Your task to perform on an android device: Search for "asus rog" on bestbuy, select the first entry, add it to the cart, then select checkout. Image 0: 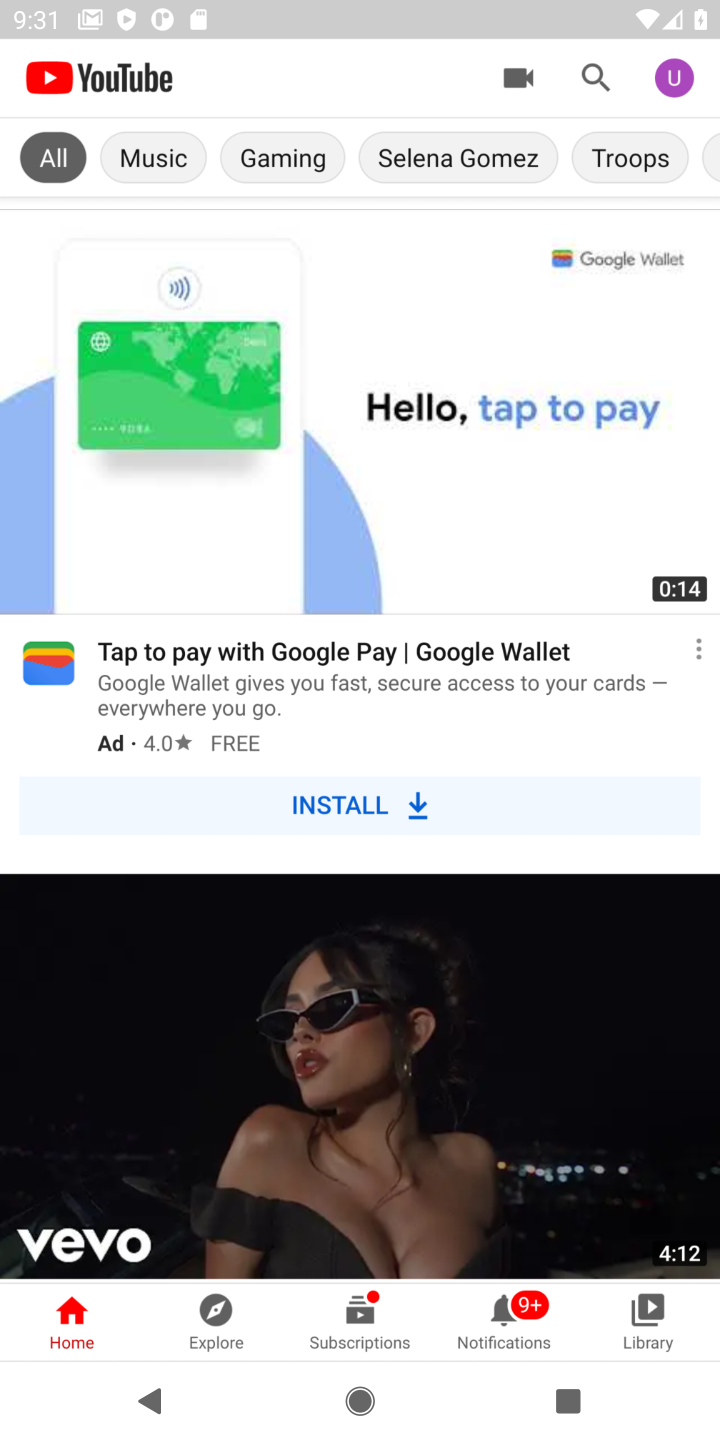
Step 0: press home button
Your task to perform on an android device: Search for "asus rog" on bestbuy, select the first entry, add it to the cart, then select checkout. Image 1: 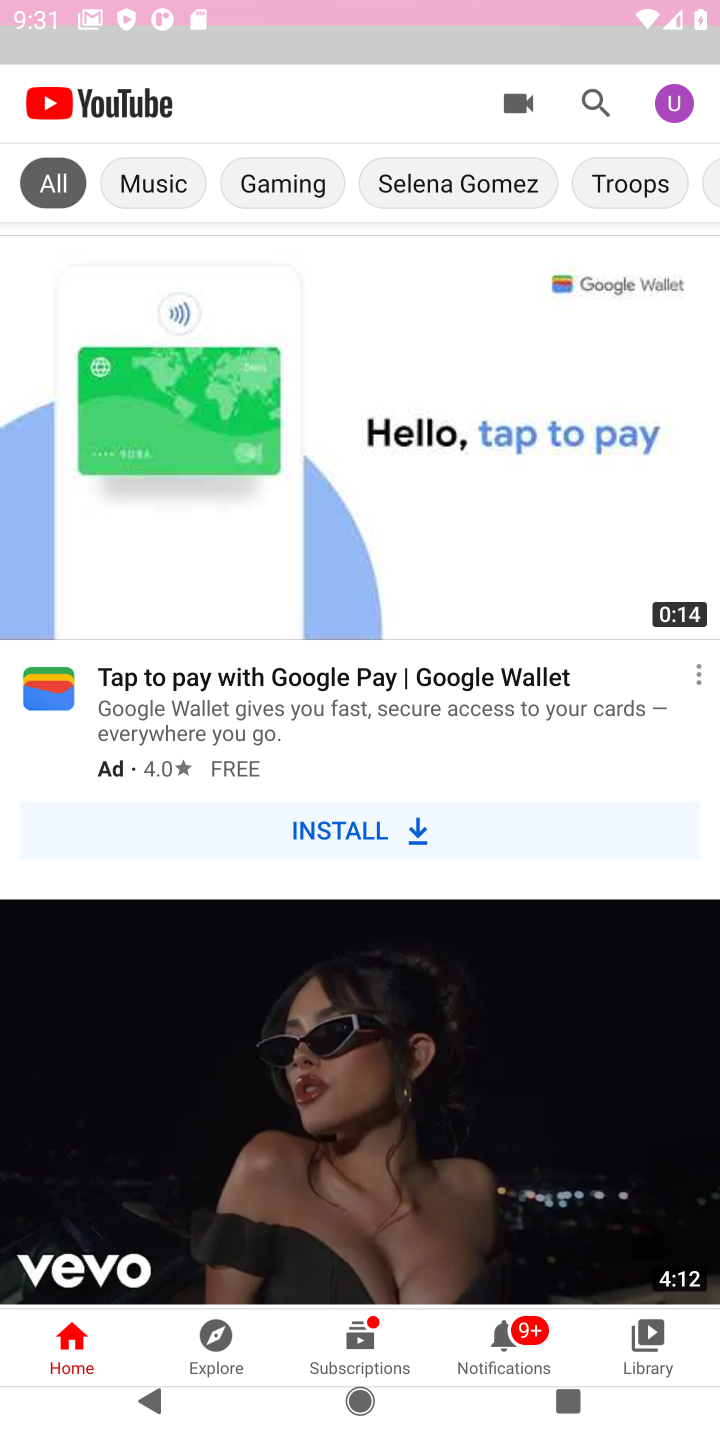
Step 1: press home button
Your task to perform on an android device: Search for "asus rog" on bestbuy, select the first entry, add it to the cart, then select checkout. Image 2: 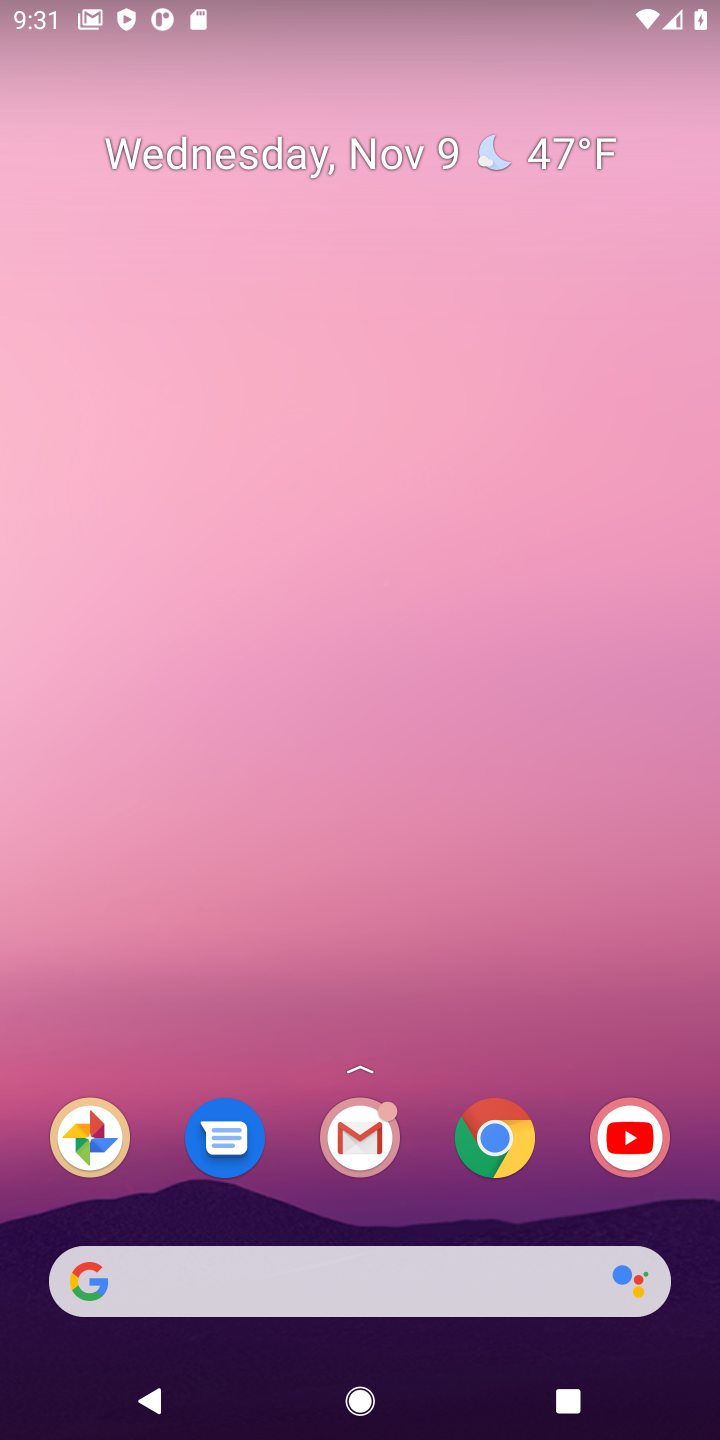
Step 2: drag from (418, 1210) to (301, 0)
Your task to perform on an android device: Search for "asus rog" on bestbuy, select the first entry, add it to the cart, then select checkout. Image 3: 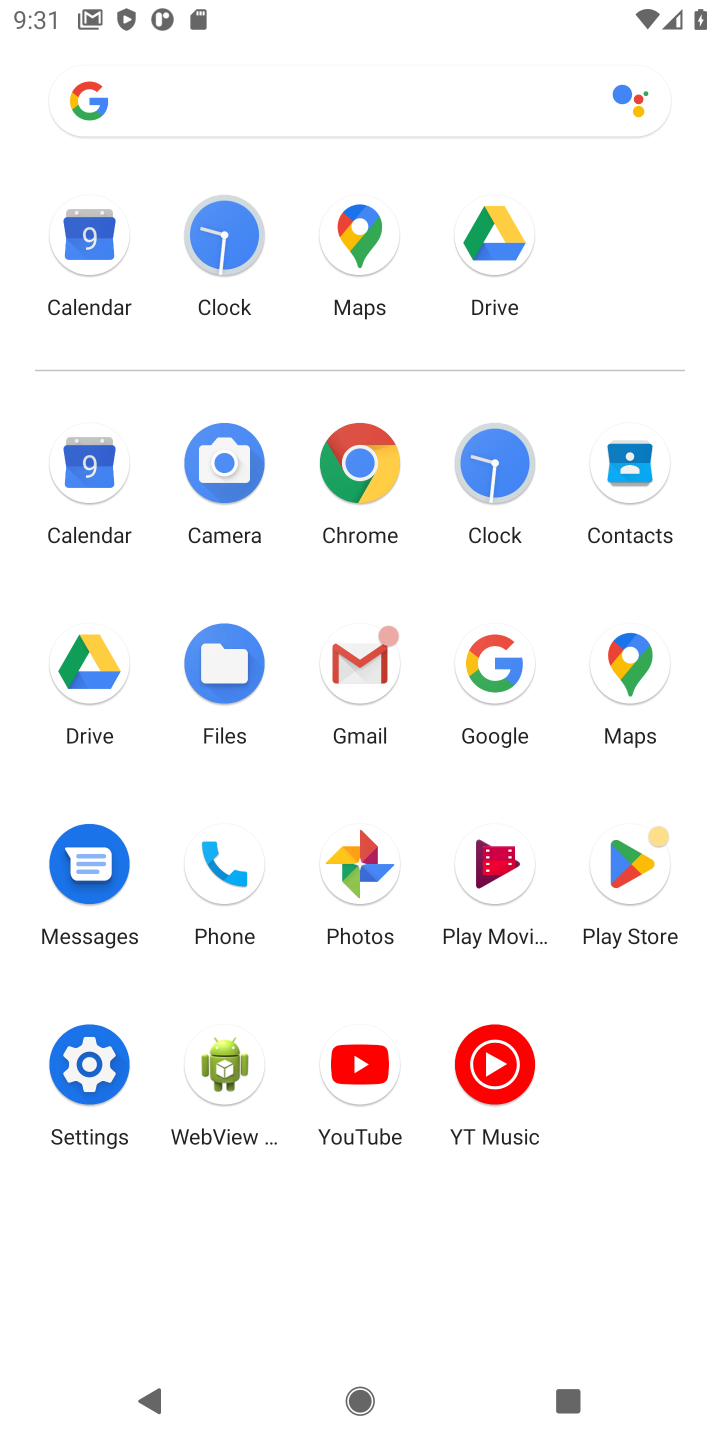
Step 3: click (359, 469)
Your task to perform on an android device: Search for "asus rog" on bestbuy, select the first entry, add it to the cart, then select checkout. Image 4: 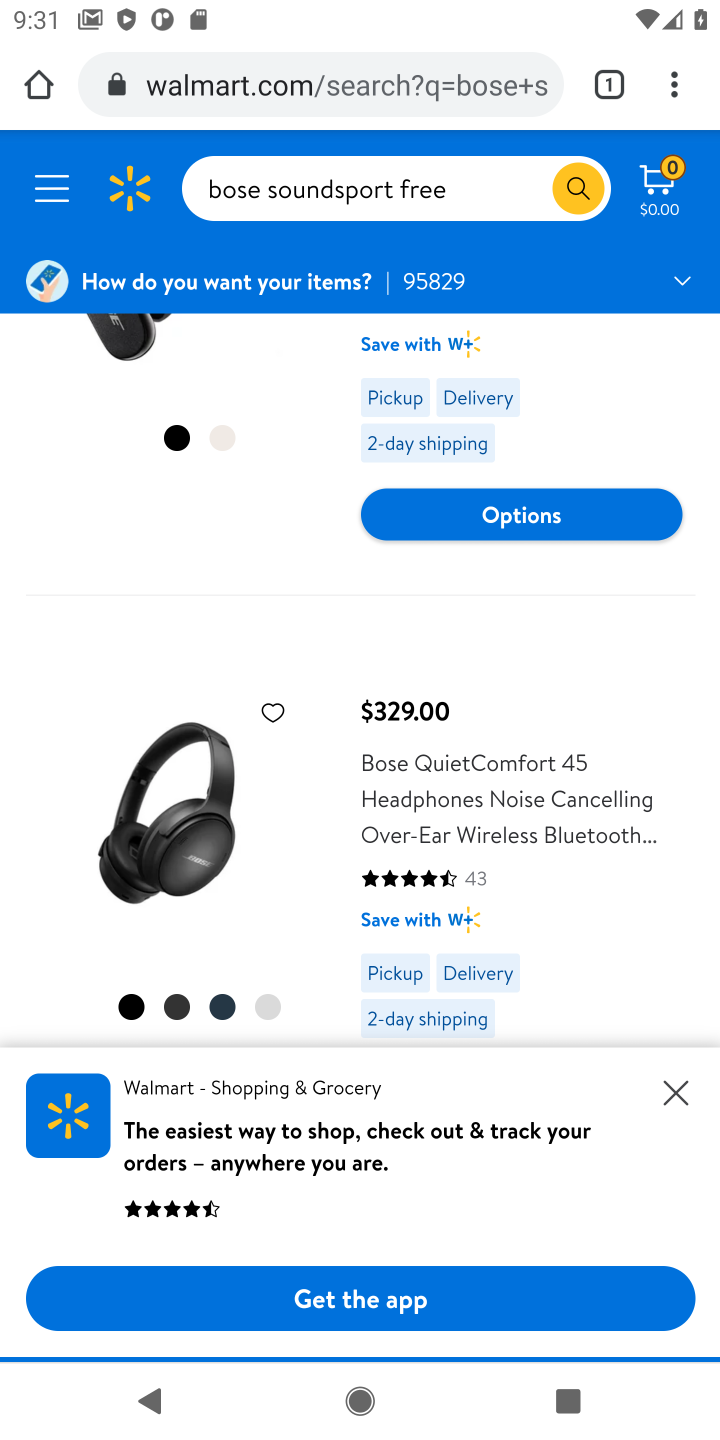
Step 4: click (445, 74)
Your task to perform on an android device: Search for "asus rog" on bestbuy, select the first entry, add it to the cart, then select checkout. Image 5: 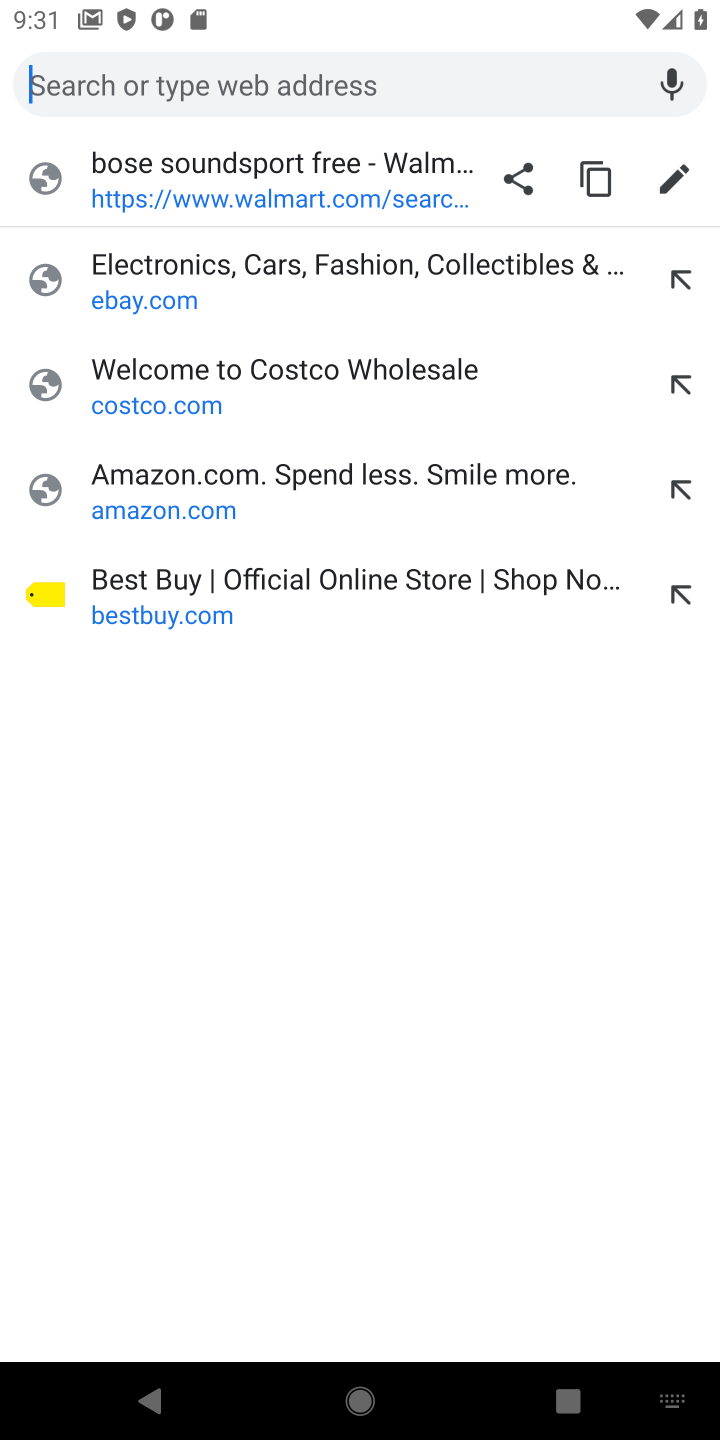
Step 5: type "bestbuy.com"
Your task to perform on an android device: Search for "asus rog" on bestbuy, select the first entry, add it to the cart, then select checkout. Image 6: 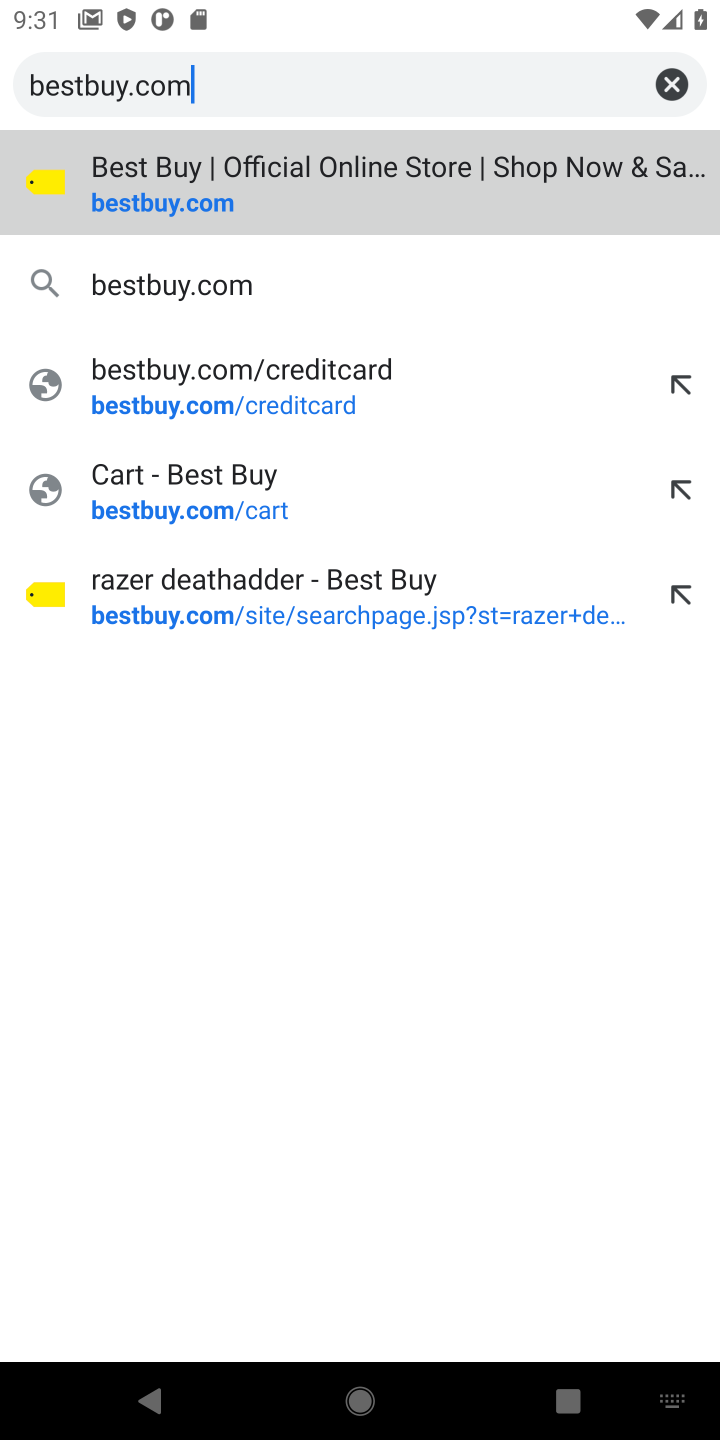
Step 6: press enter
Your task to perform on an android device: Search for "asus rog" on bestbuy, select the first entry, add it to the cart, then select checkout. Image 7: 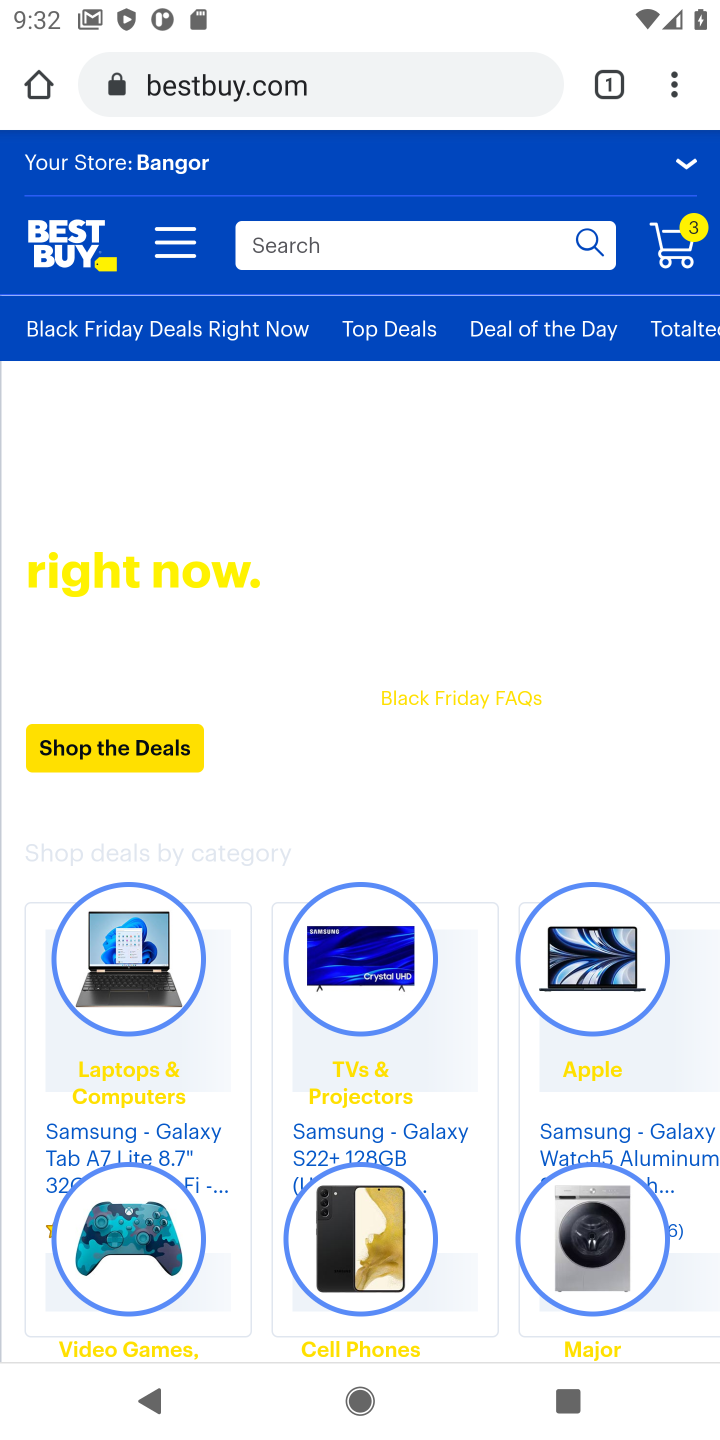
Step 7: click (372, 240)
Your task to perform on an android device: Search for "asus rog" on bestbuy, select the first entry, add it to the cart, then select checkout. Image 8: 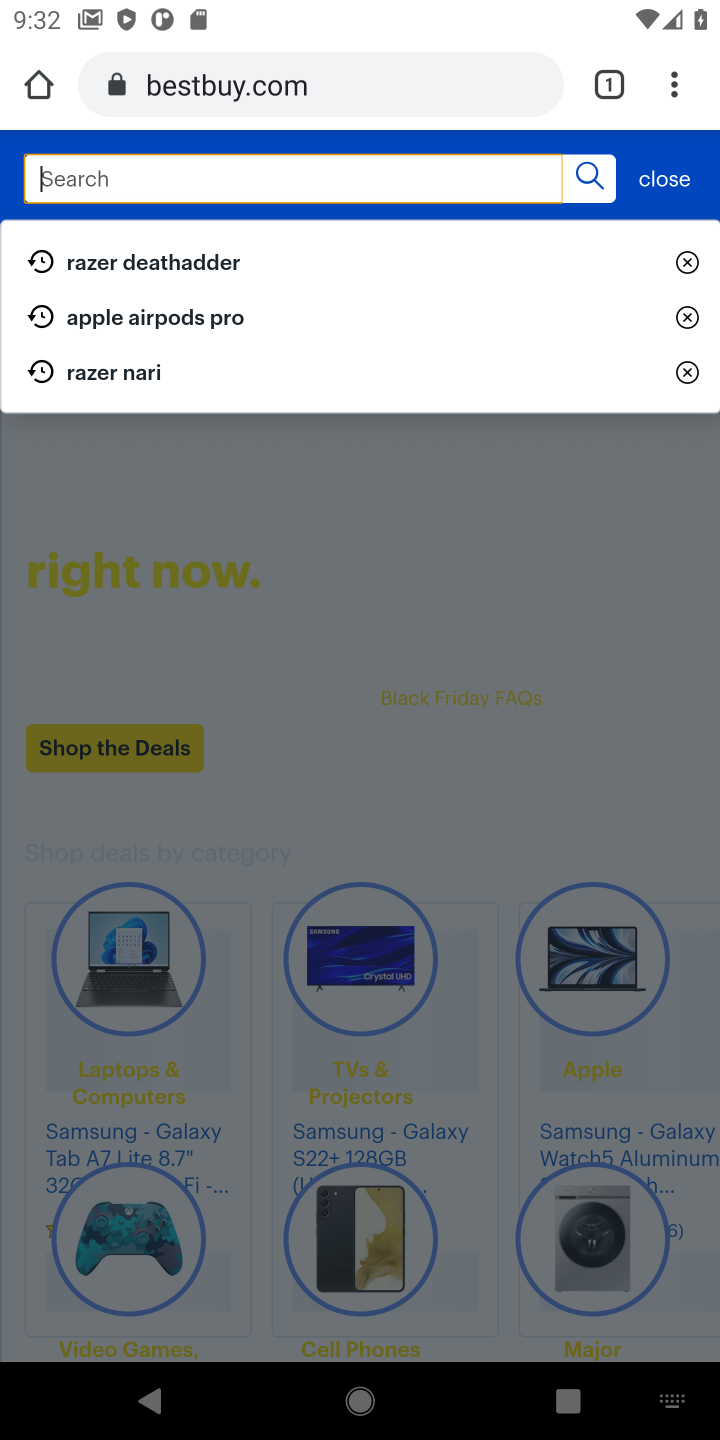
Step 8: type "asus rog"
Your task to perform on an android device: Search for "asus rog" on bestbuy, select the first entry, add it to the cart, then select checkout. Image 9: 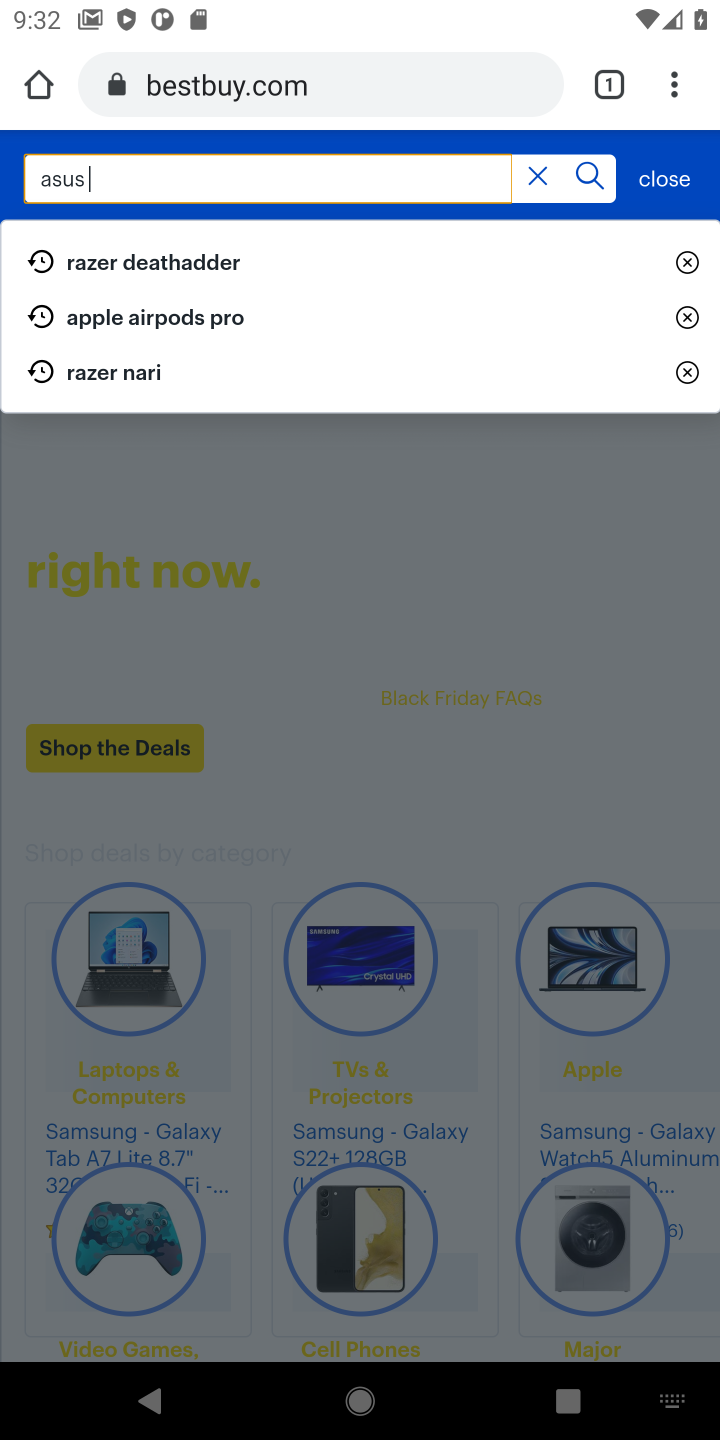
Step 9: press enter
Your task to perform on an android device: Search for "asus rog" on bestbuy, select the first entry, add it to the cart, then select checkout. Image 10: 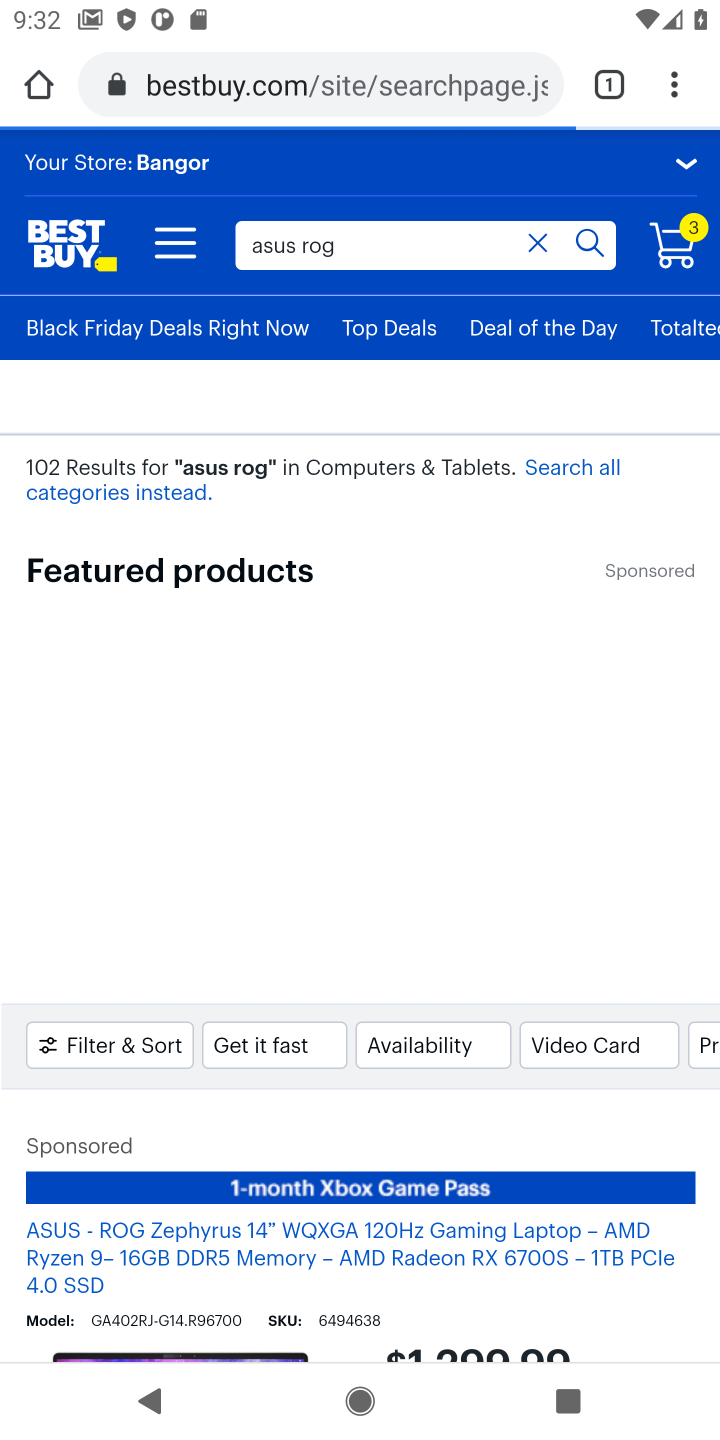
Step 10: drag from (479, 823) to (464, 150)
Your task to perform on an android device: Search for "asus rog" on bestbuy, select the first entry, add it to the cart, then select checkout. Image 11: 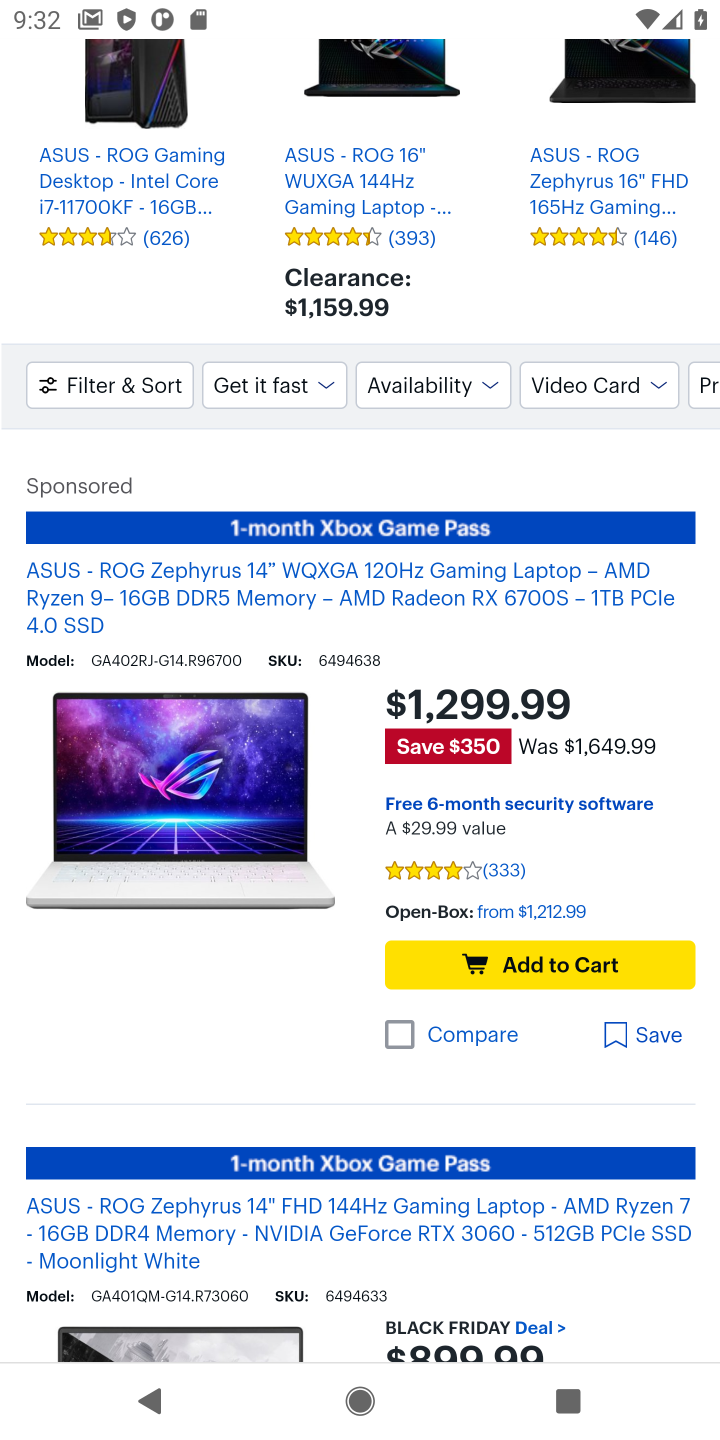
Step 11: click (572, 959)
Your task to perform on an android device: Search for "asus rog" on bestbuy, select the first entry, add it to the cart, then select checkout. Image 12: 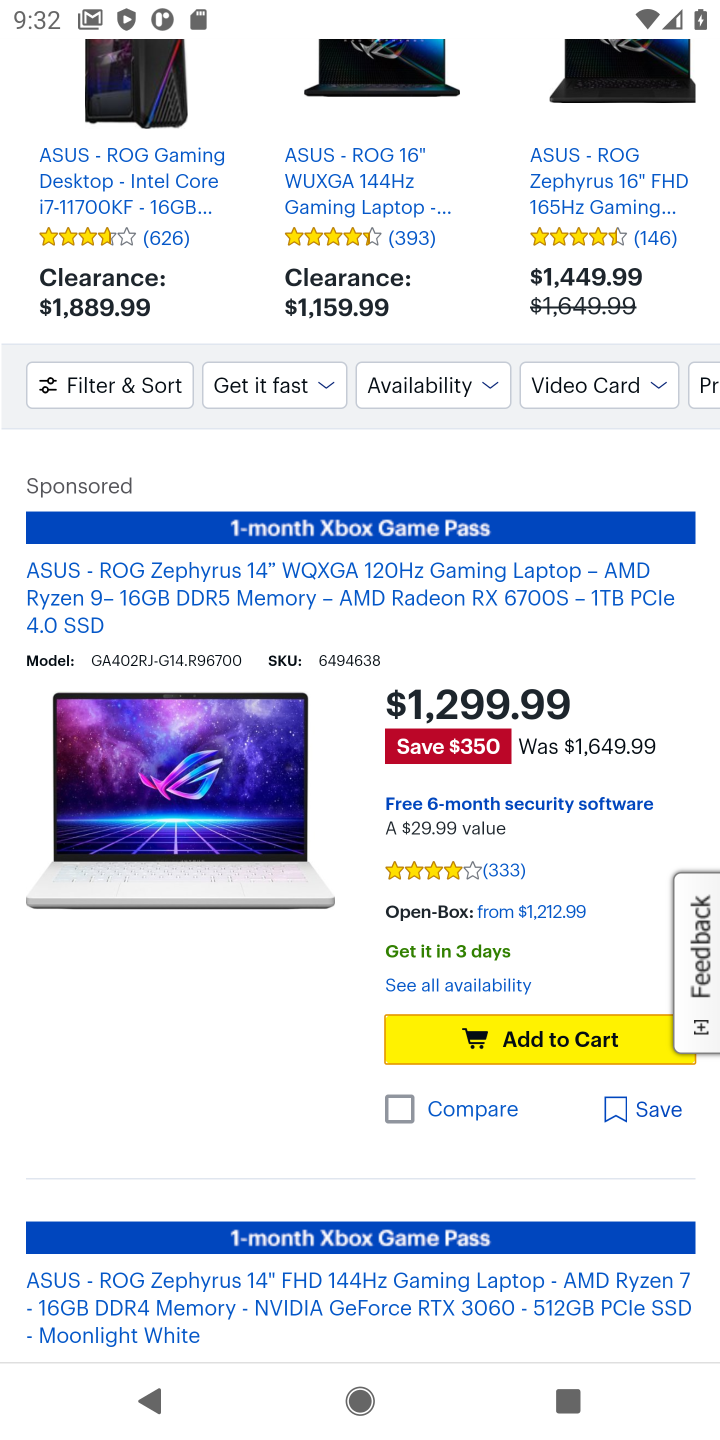
Step 12: click (518, 1038)
Your task to perform on an android device: Search for "asus rog" on bestbuy, select the first entry, add it to the cart, then select checkout. Image 13: 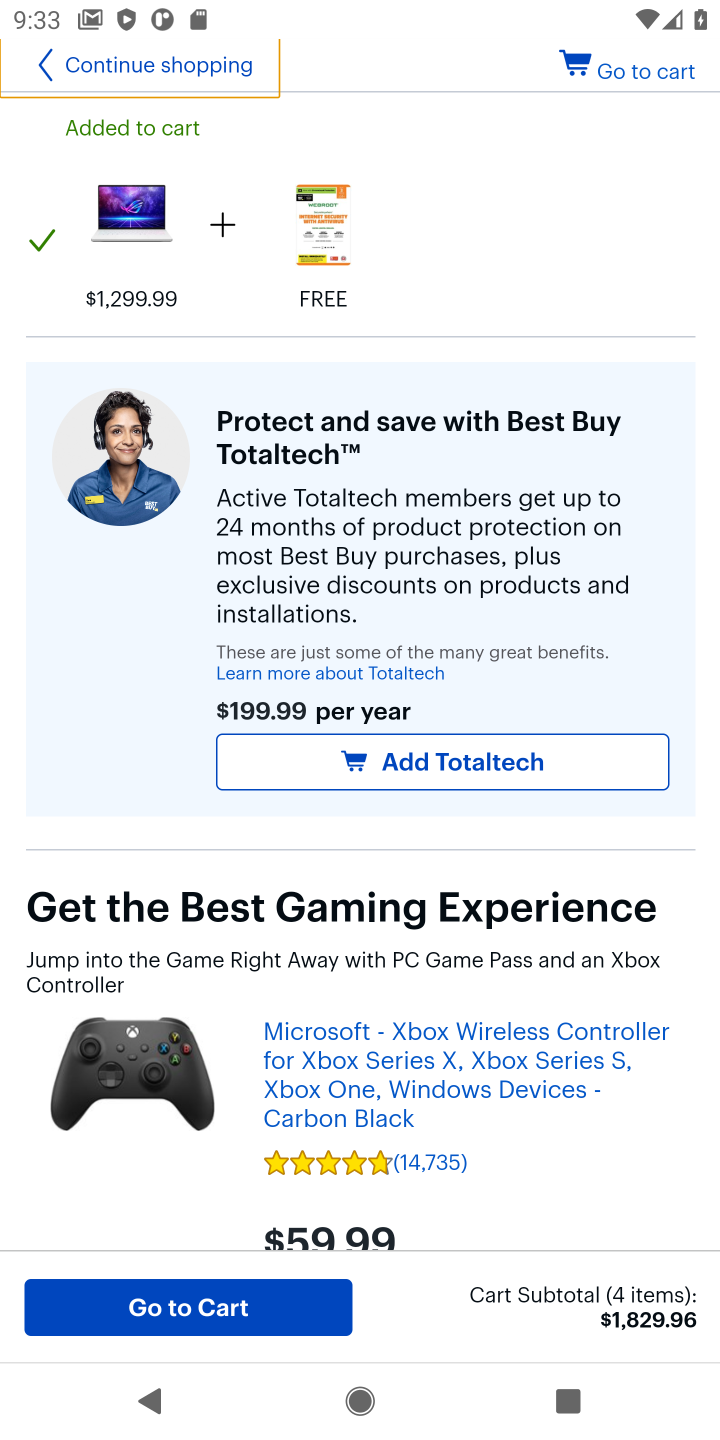
Step 13: click (248, 1299)
Your task to perform on an android device: Search for "asus rog" on bestbuy, select the first entry, add it to the cart, then select checkout. Image 14: 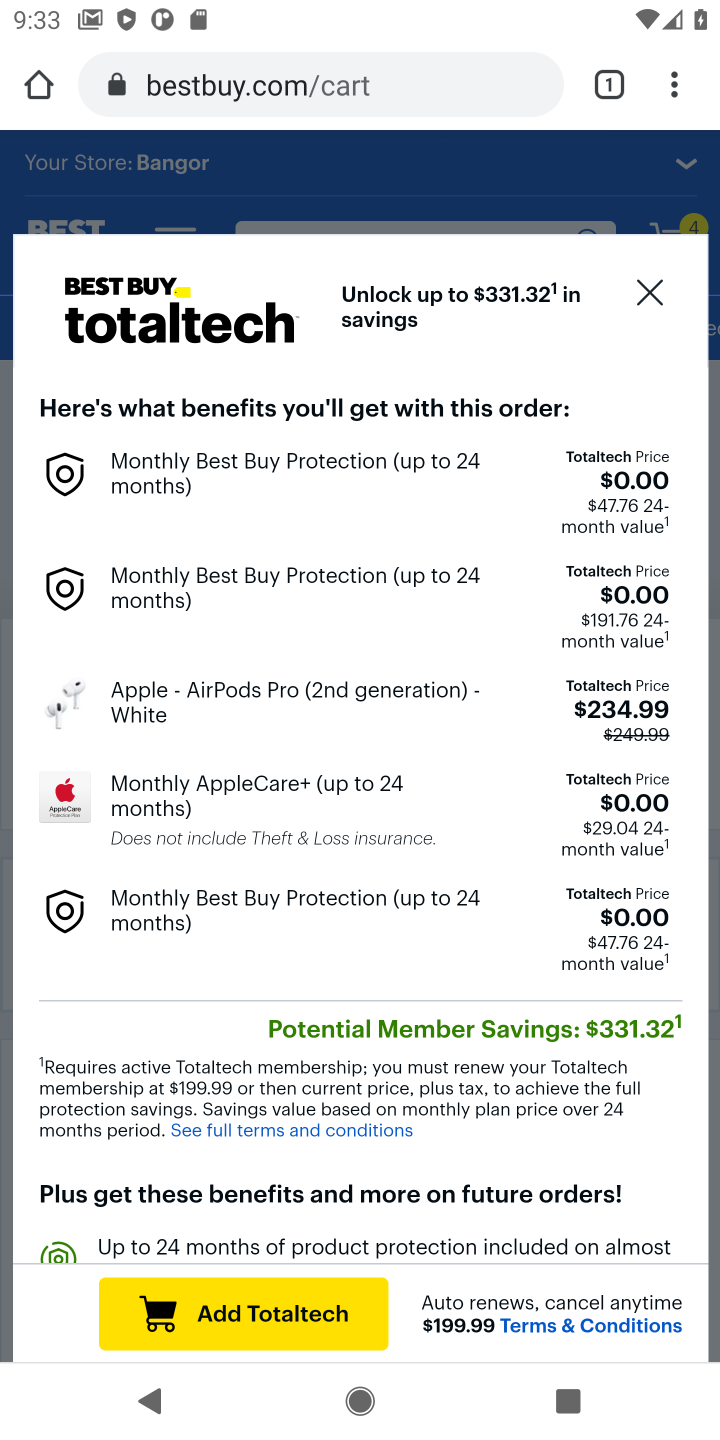
Step 14: click (636, 300)
Your task to perform on an android device: Search for "asus rog" on bestbuy, select the first entry, add it to the cart, then select checkout. Image 15: 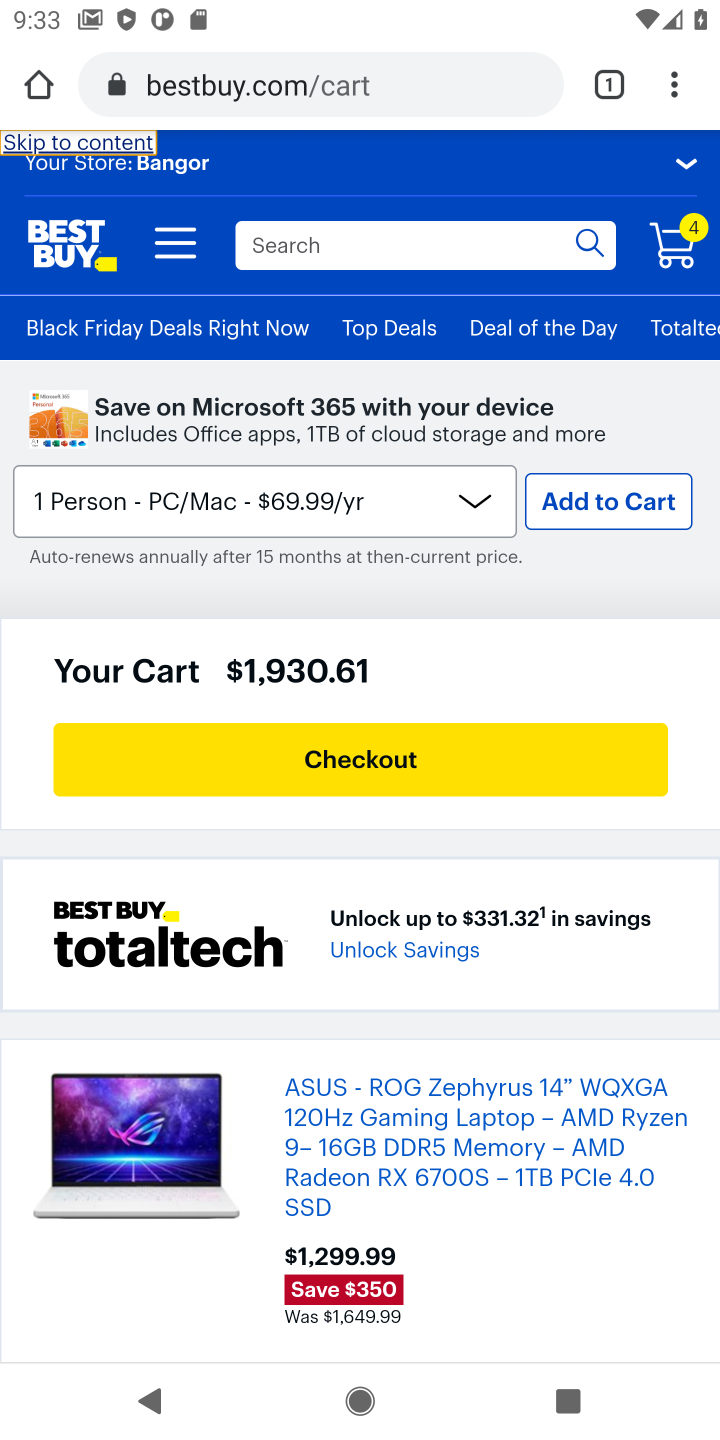
Step 15: click (465, 749)
Your task to perform on an android device: Search for "asus rog" on bestbuy, select the first entry, add it to the cart, then select checkout. Image 16: 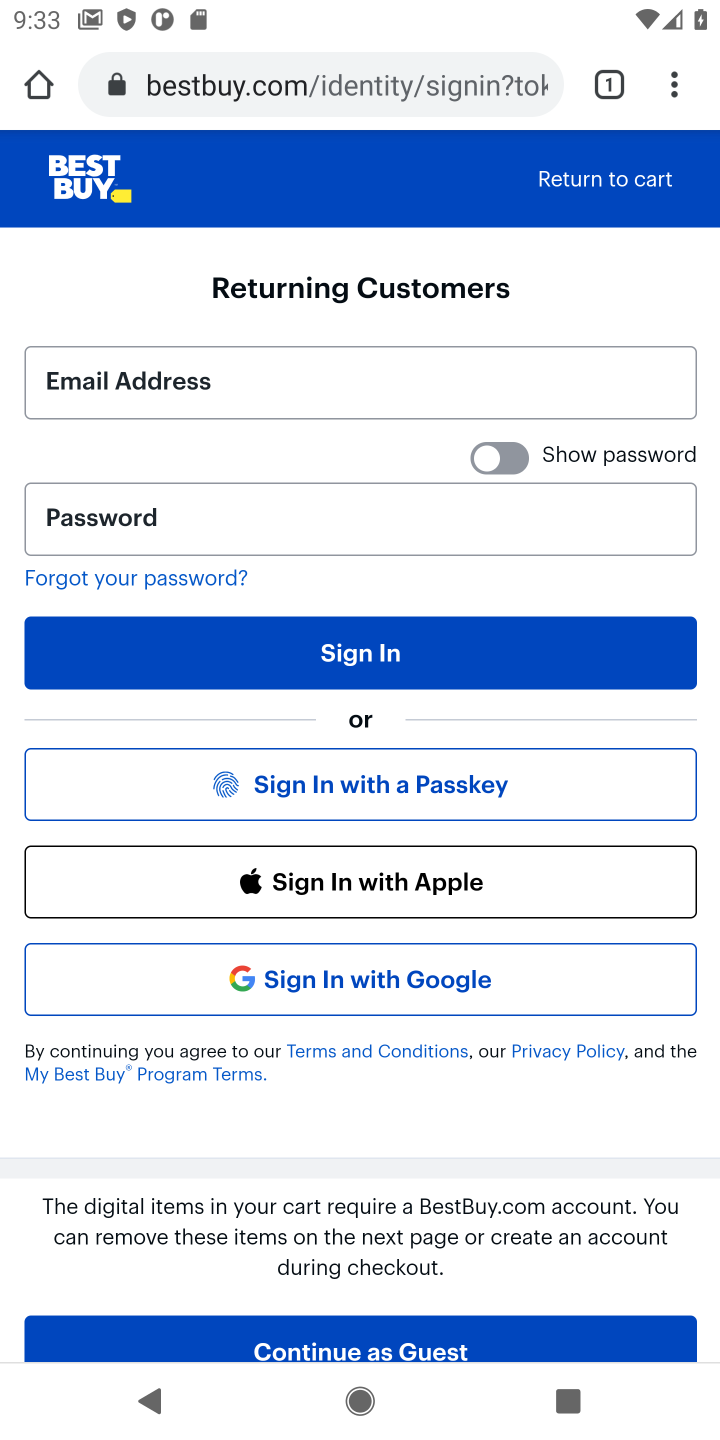
Step 16: task complete